Your task to perform on an android device: When is my next meeting? Image 0: 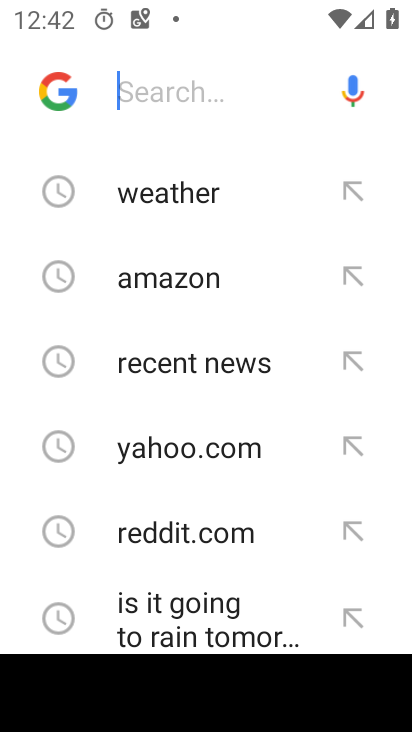
Step 0: press home button
Your task to perform on an android device: When is my next meeting? Image 1: 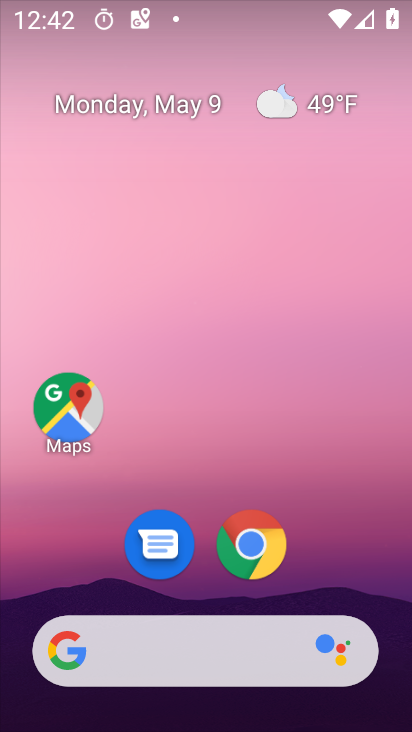
Step 1: drag from (187, 561) to (200, 90)
Your task to perform on an android device: When is my next meeting? Image 2: 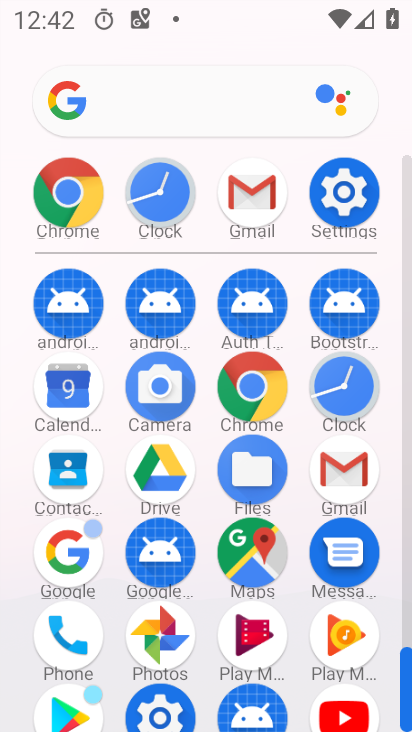
Step 2: click (71, 393)
Your task to perform on an android device: When is my next meeting? Image 3: 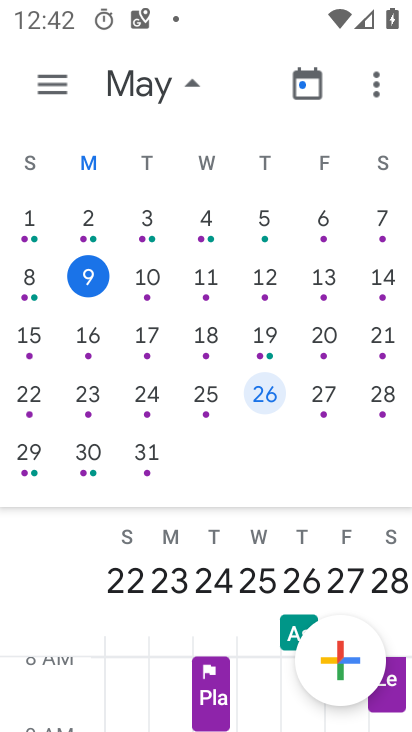
Step 3: click (87, 280)
Your task to perform on an android device: When is my next meeting? Image 4: 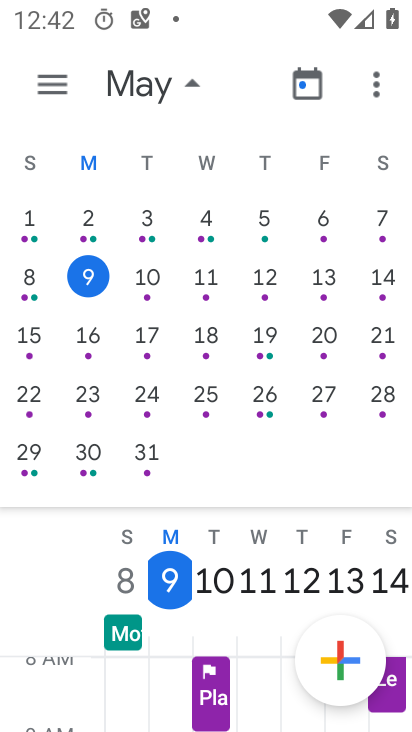
Step 4: task complete